Your task to perform on an android device: all mails in gmail Image 0: 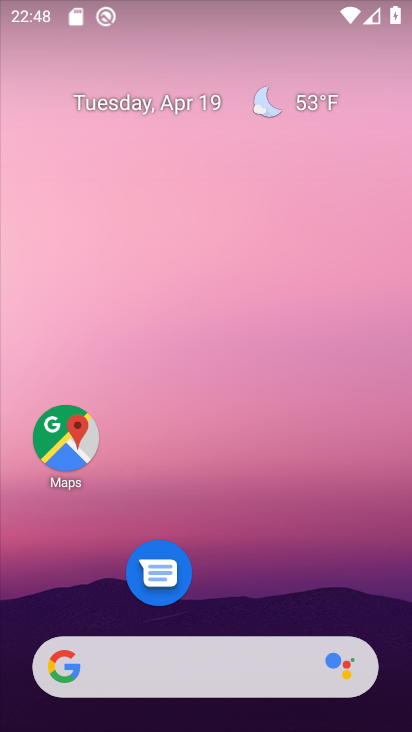
Step 0: drag from (219, 608) to (252, 147)
Your task to perform on an android device: all mails in gmail Image 1: 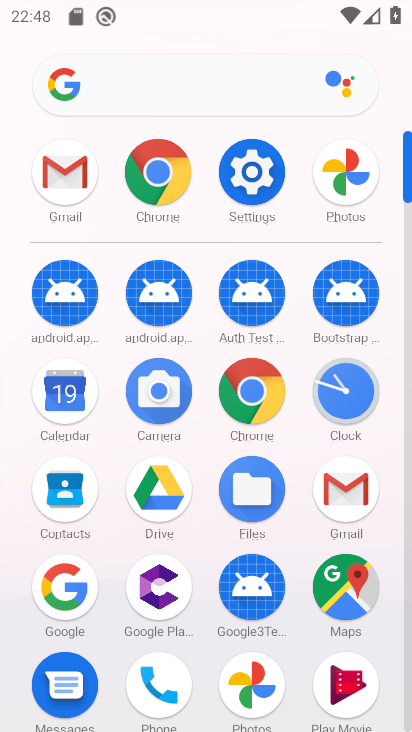
Step 1: press home button
Your task to perform on an android device: all mails in gmail Image 2: 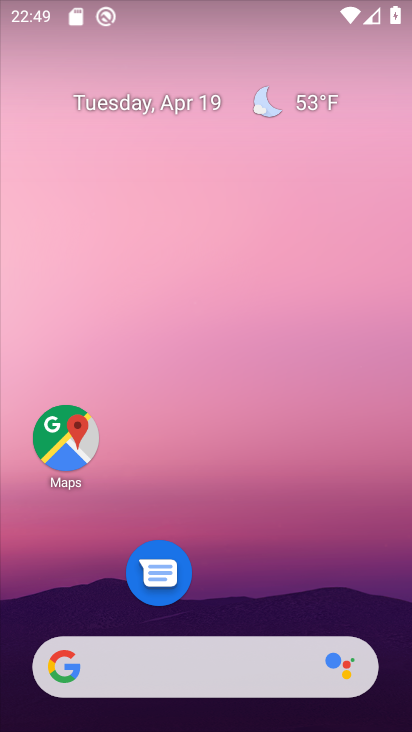
Step 2: drag from (241, 585) to (232, 168)
Your task to perform on an android device: all mails in gmail Image 3: 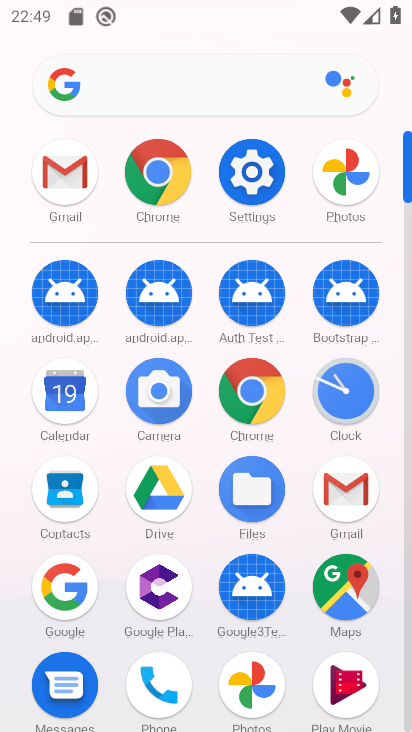
Step 3: click (342, 479)
Your task to perform on an android device: all mails in gmail Image 4: 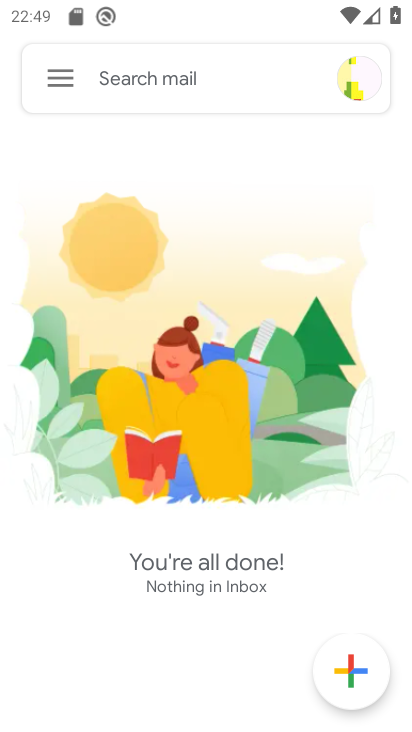
Step 4: click (49, 70)
Your task to perform on an android device: all mails in gmail Image 5: 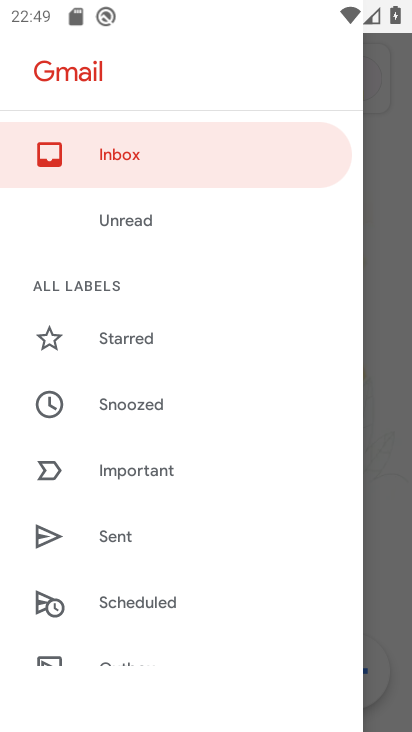
Step 5: drag from (168, 569) to (203, 42)
Your task to perform on an android device: all mails in gmail Image 6: 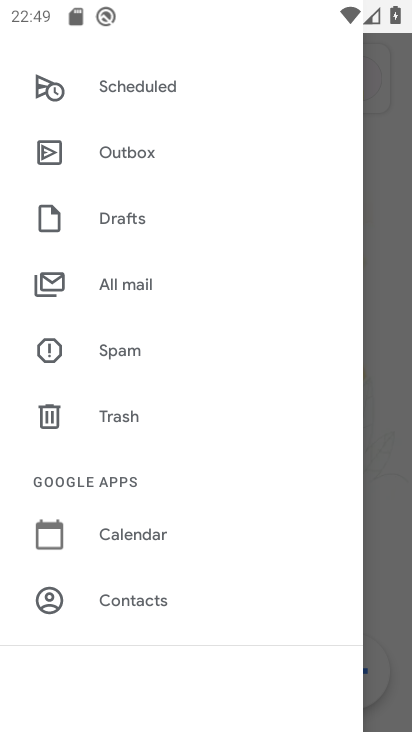
Step 6: click (143, 276)
Your task to perform on an android device: all mails in gmail Image 7: 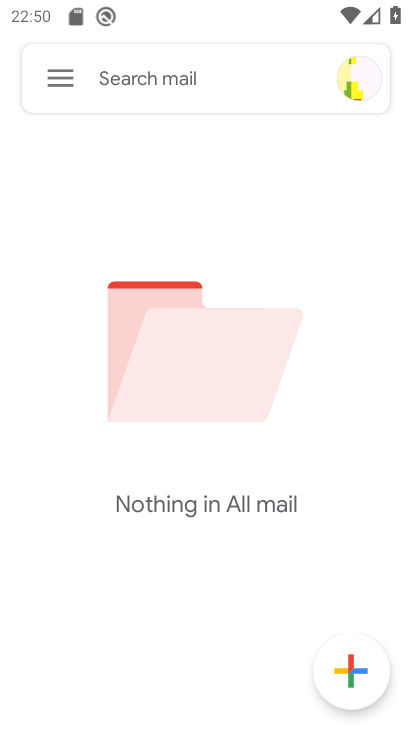
Step 7: task complete